Your task to perform on an android device: clear history in the chrome app Image 0: 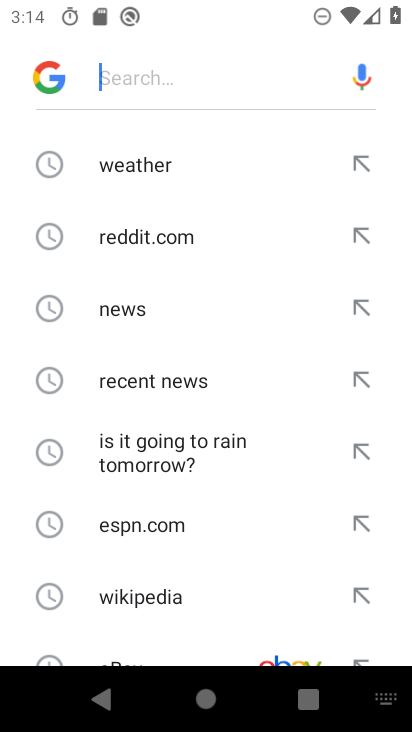
Step 0: press home button
Your task to perform on an android device: clear history in the chrome app Image 1: 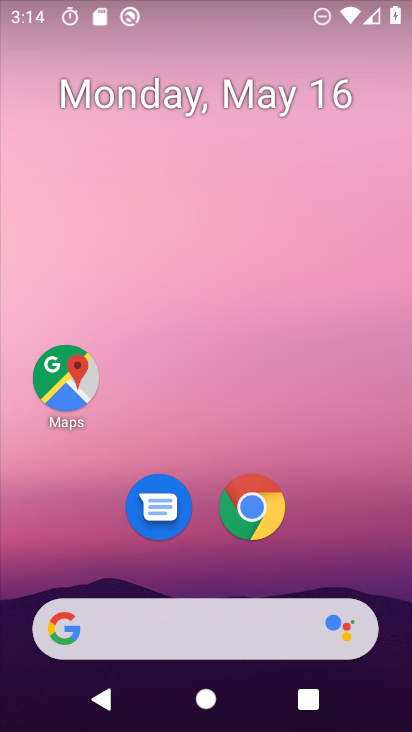
Step 1: drag from (346, 440) to (239, 5)
Your task to perform on an android device: clear history in the chrome app Image 2: 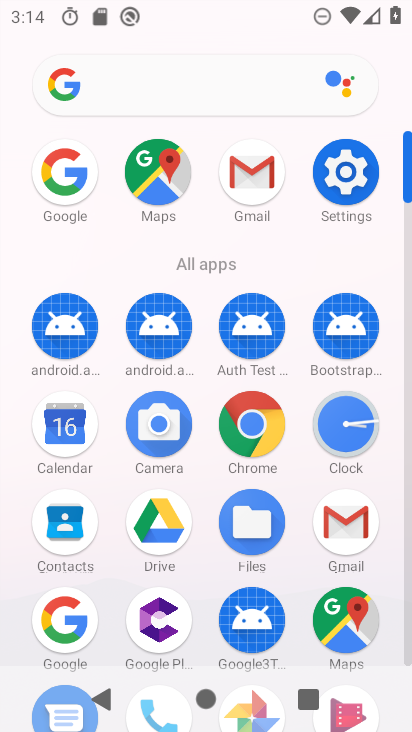
Step 2: click (266, 428)
Your task to perform on an android device: clear history in the chrome app Image 3: 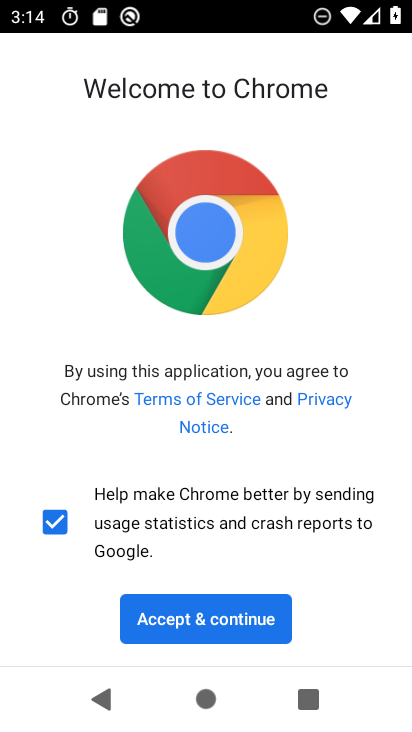
Step 3: click (216, 605)
Your task to perform on an android device: clear history in the chrome app Image 4: 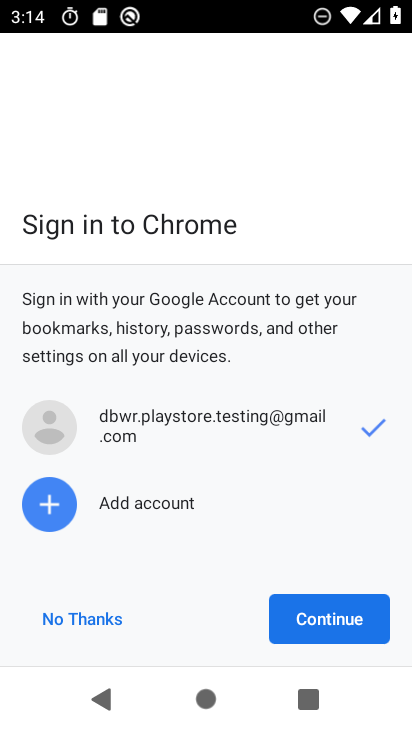
Step 4: click (334, 629)
Your task to perform on an android device: clear history in the chrome app Image 5: 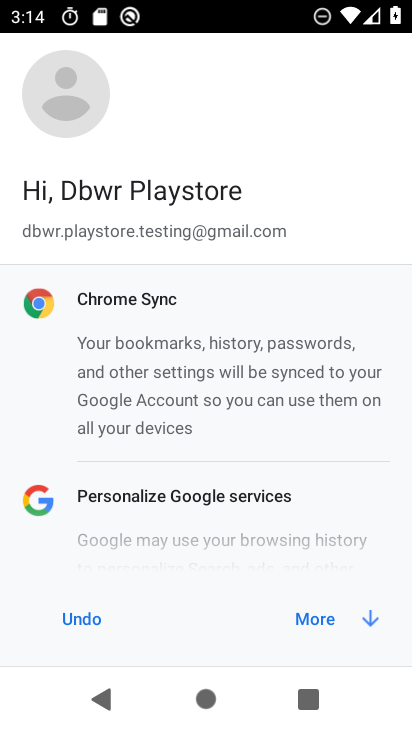
Step 5: click (336, 606)
Your task to perform on an android device: clear history in the chrome app Image 6: 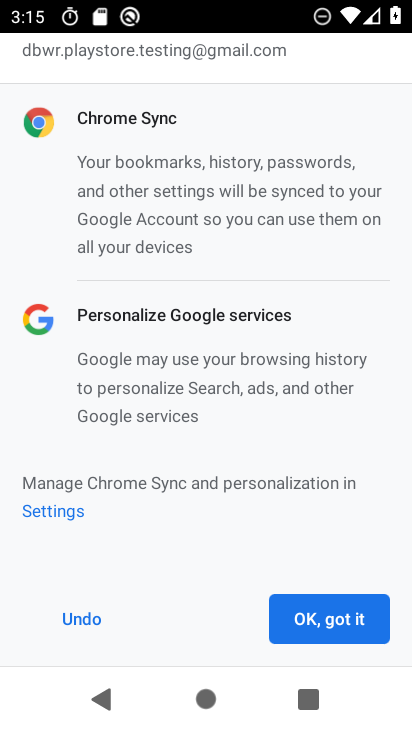
Step 6: click (326, 613)
Your task to perform on an android device: clear history in the chrome app Image 7: 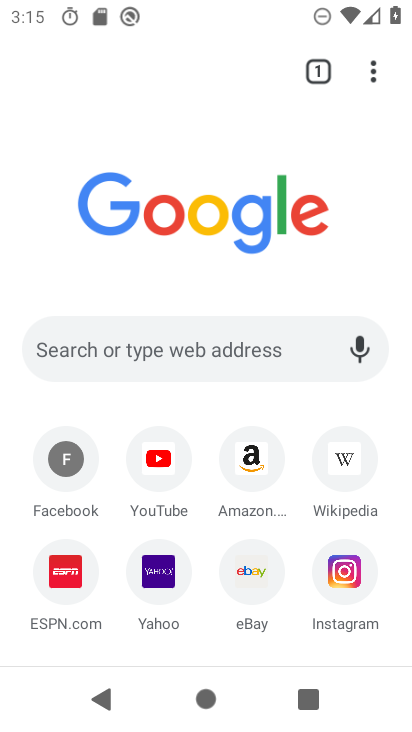
Step 7: click (379, 83)
Your task to perform on an android device: clear history in the chrome app Image 8: 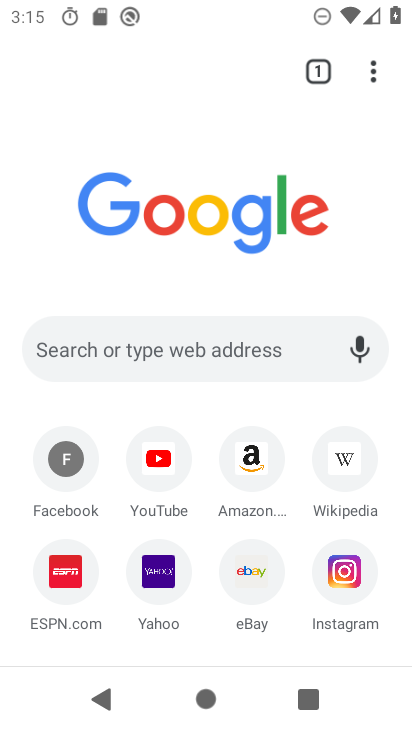
Step 8: click (367, 90)
Your task to perform on an android device: clear history in the chrome app Image 9: 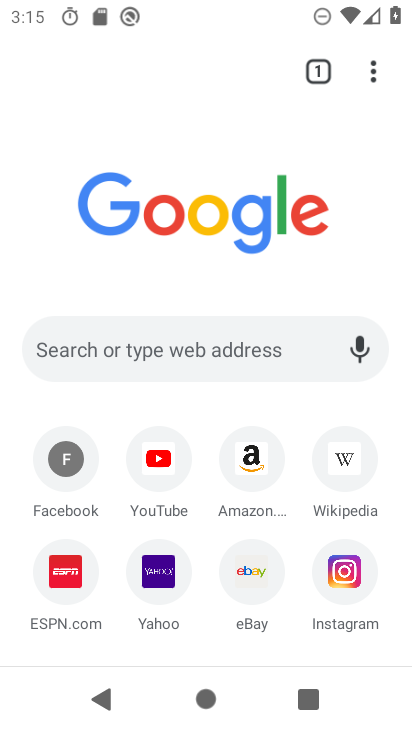
Step 9: task complete